Your task to perform on an android device: turn on data saver in the chrome app Image 0: 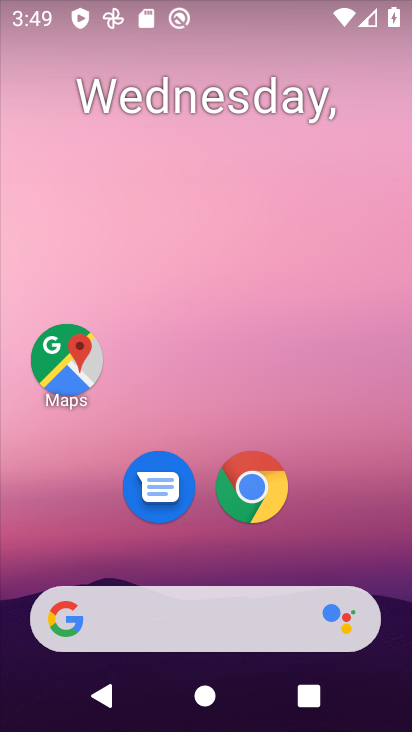
Step 0: drag from (382, 542) to (380, 250)
Your task to perform on an android device: turn on data saver in the chrome app Image 1: 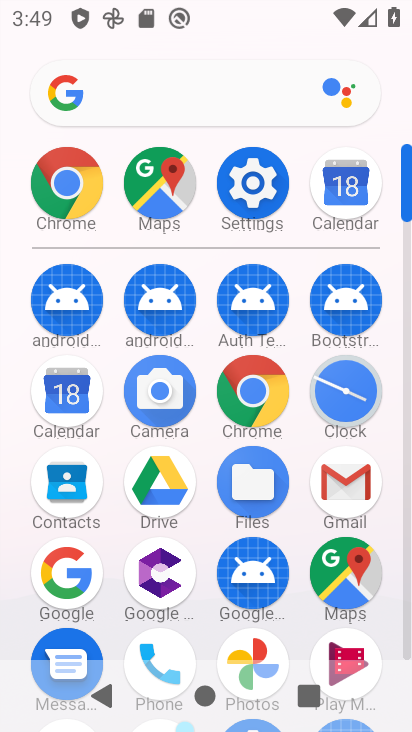
Step 1: click (285, 391)
Your task to perform on an android device: turn on data saver in the chrome app Image 2: 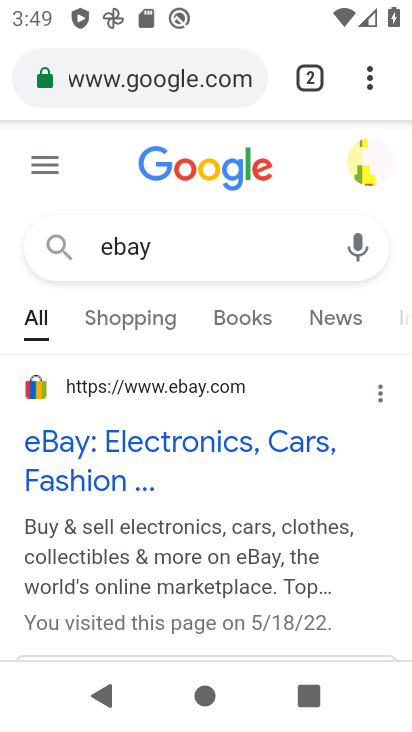
Step 2: click (370, 81)
Your task to perform on an android device: turn on data saver in the chrome app Image 3: 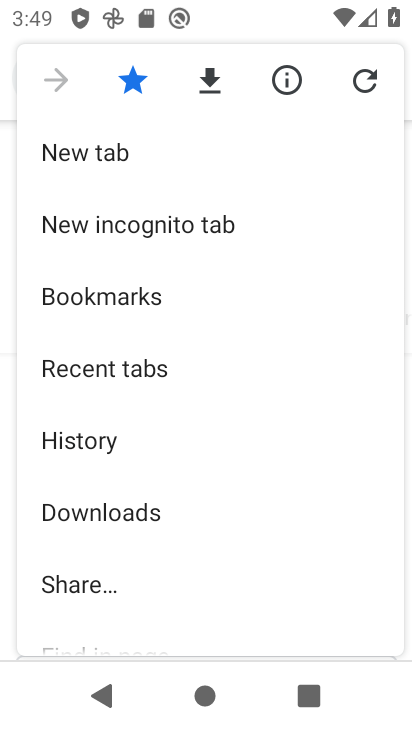
Step 3: drag from (336, 496) to (352, 411)
Your task to perform on an android device: turn on data saver in the chrome app Image 4: 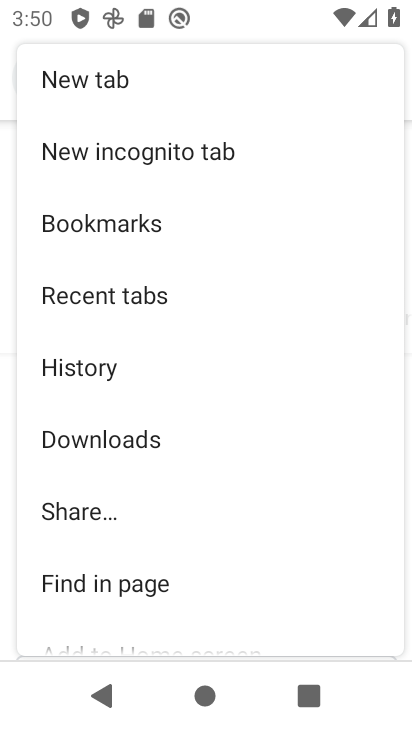
Step 4: drag from (348, 535) to (368, 420)
Your task to perform on an android device: turn on data saver in the chrome app Image 5: 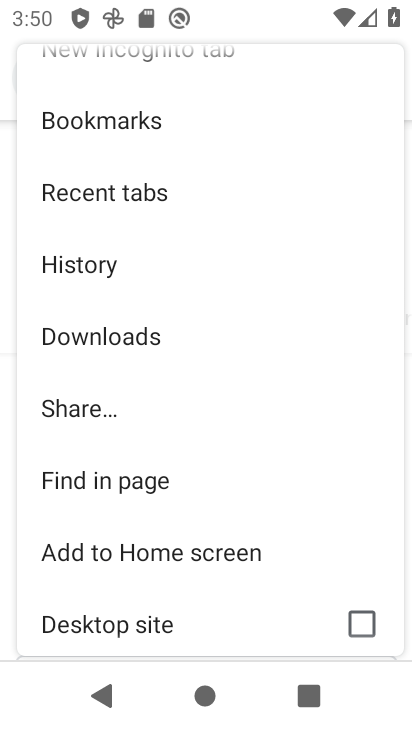
Step 5: drag from (331, 535) to (350, 405)
Your task to perform on an android device: turn on data saver in the chrome app Image 6: 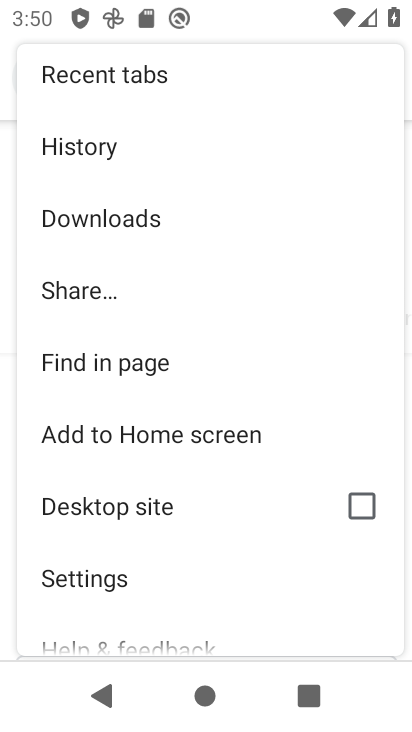
Step 6: drag from (293, 591) to (323, 391)
Your task to perform on an android device: turn on data saver in the chrome app Image 7: 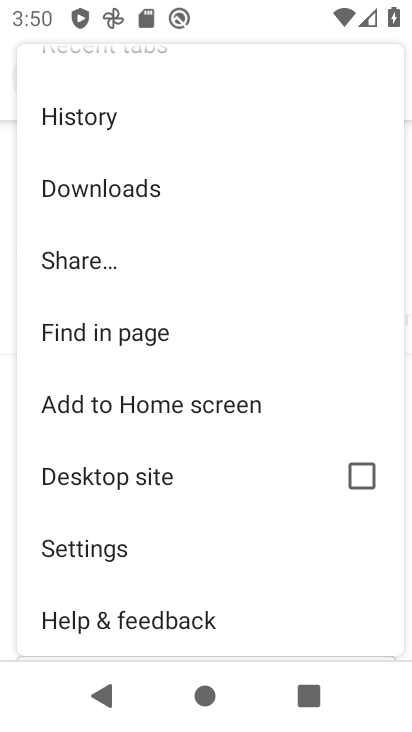
Step 7: drag from (323, 336) to (299, 446)
Your task to perform on an android device: turn on data saver in the chrome app Image 8: 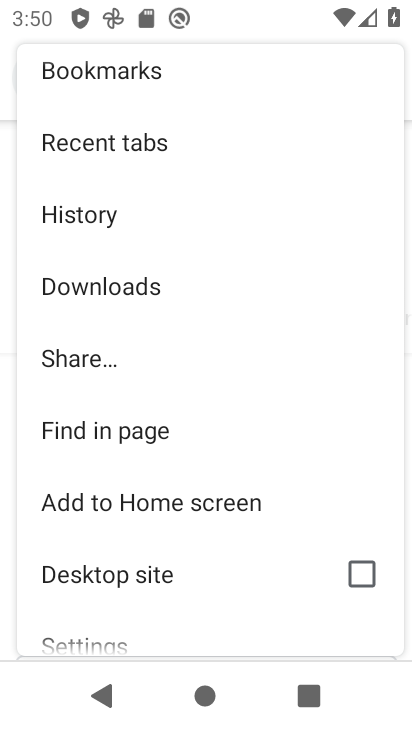
Step 8: drag from (298, 305) to (299, 397)
Your task to perform on an android device: turn on data saver in the chrome app Image 9: 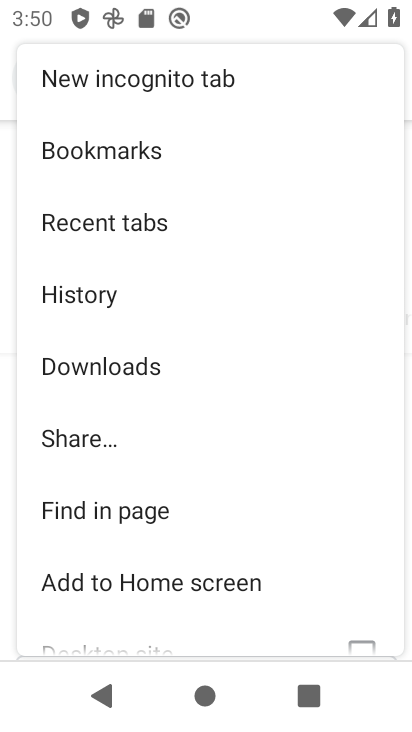
Step 9: drag from (297, 289) to (298, 393)
Your task to perform on an android device: turn on data saver in the chrome app Image 10: 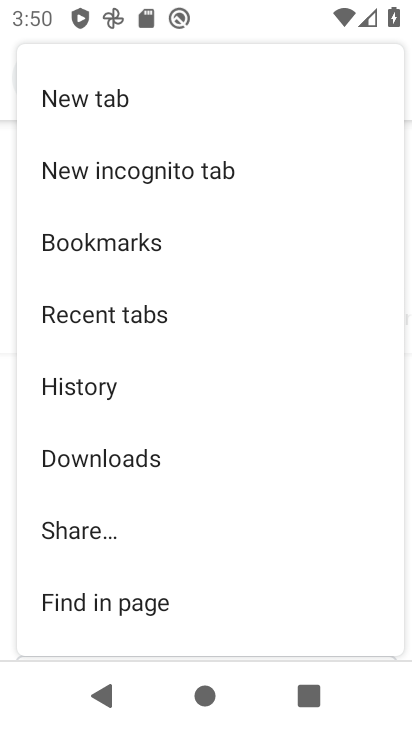
Step 10: drag from (307, 275) to (301, 387)
Your task to perform on an android device: turn on data saver in the chrome app Image 11: 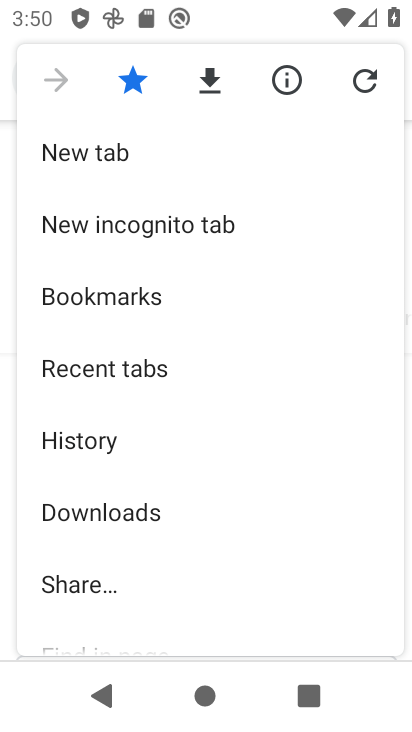
Step 11: drag from (293, 485) to (313, 409)
Your task to perform on an android device: turn on data saver in the chrome app Image 12: 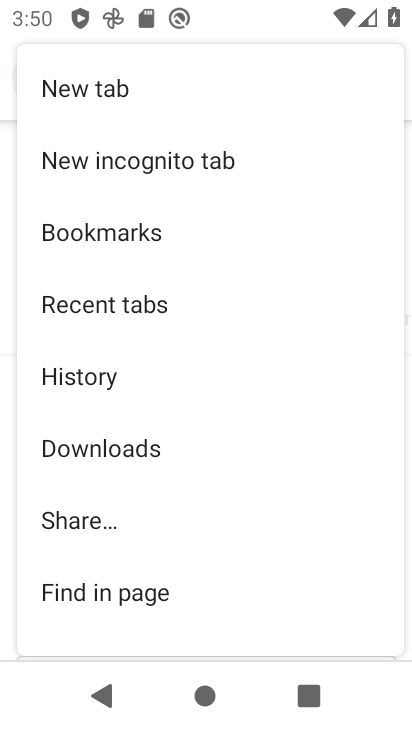
Step 12: drag from (307, 529) to (322, 437)
Your task to perform on an android device: turn on data saver in the chrome app Image 13: 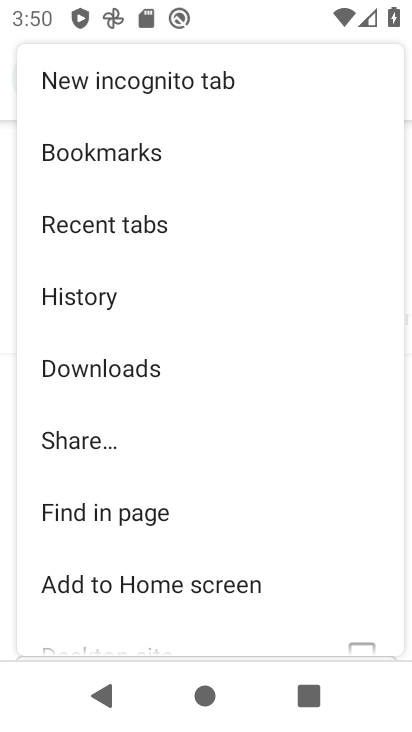
Step 13: drag from (307, 564) to (328, 430)
Your task to perform on an android device: turn on data saver in the chrome app Image 14: 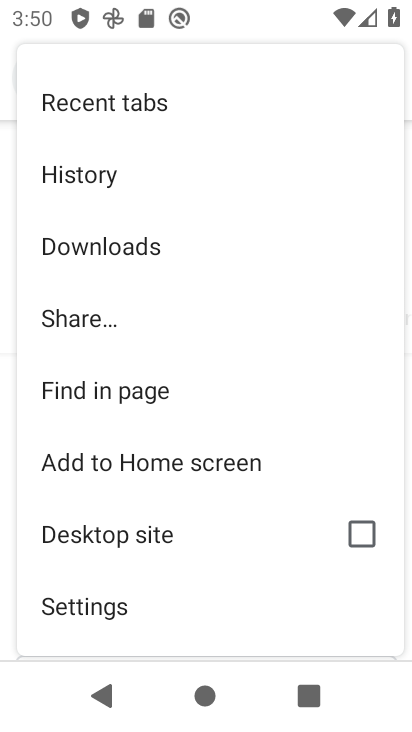
Step 14: drag from (289, 561) to (314, 450)
Your task to perform on an android device: turn on data saver in the chrome app Image 15: 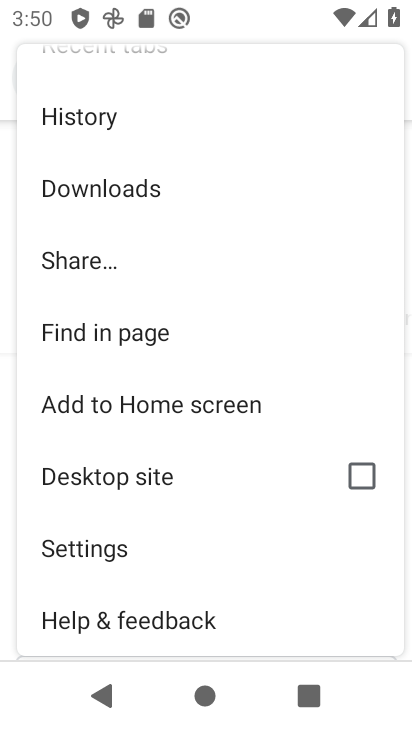
Step 15: drag from (290, 577) to (305, 448)
Your task to perform on an android device: turn on data saver in the chrome app Image 16: 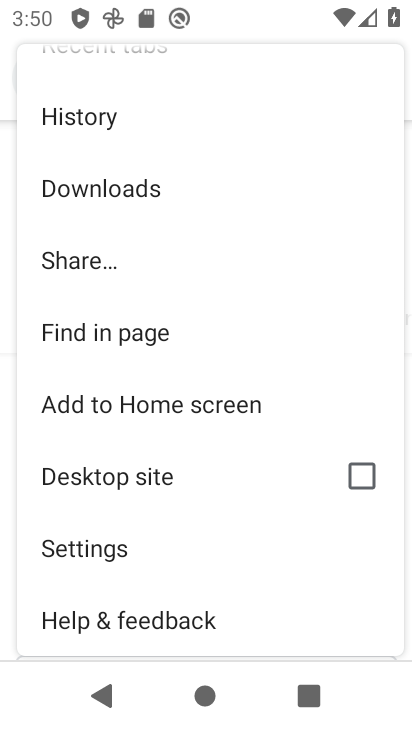
Step 16: click (129, 554)
Your task to perform on an android device: turn on data saver in the chrome app Image 17: 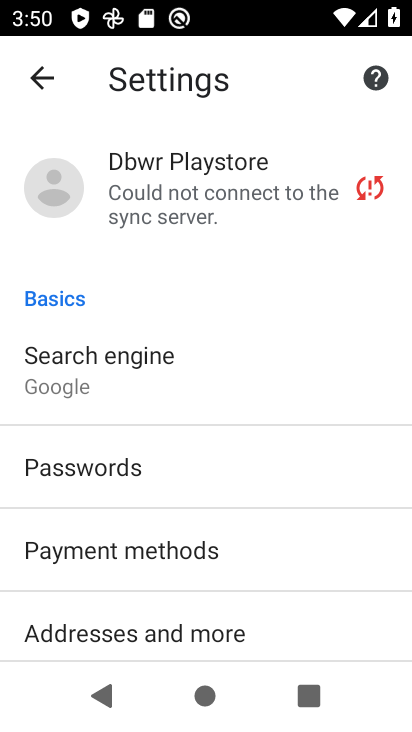
Step 17: drag from (300, 632) to (303, 503)
Your task to perform on an android device: turn on data saver in the chrome app Image 18: 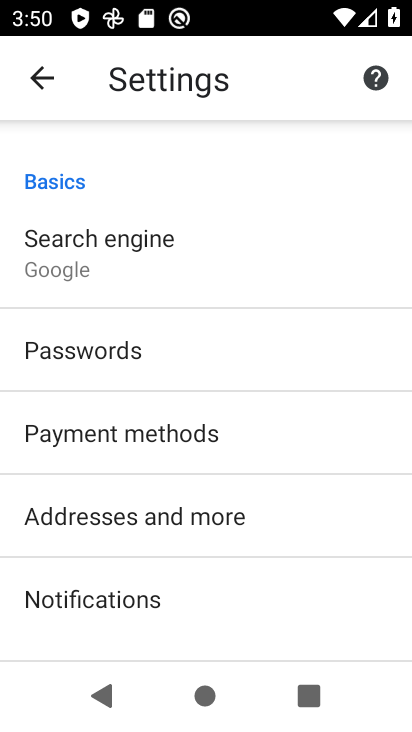
Step 18: drag from (287, 626) to (287, 503)
Your task to perform on an android device: turn on data saver in the chrome app Image 19: 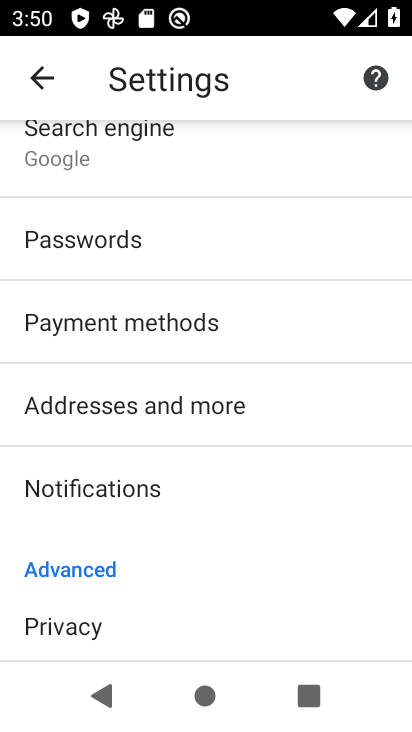
Step 19: drag from (271, 612) to (269, 514)
Your task to perform on an android device: turn on data saver in the chrome app Image 20: 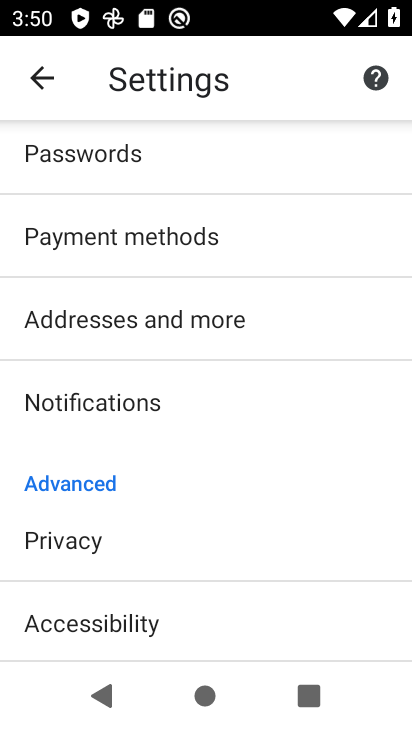
Step 20: drag from (252, 604) to (266, 518)
Your task to perform on an android device: turn on data saver in the chrome app Image 21: 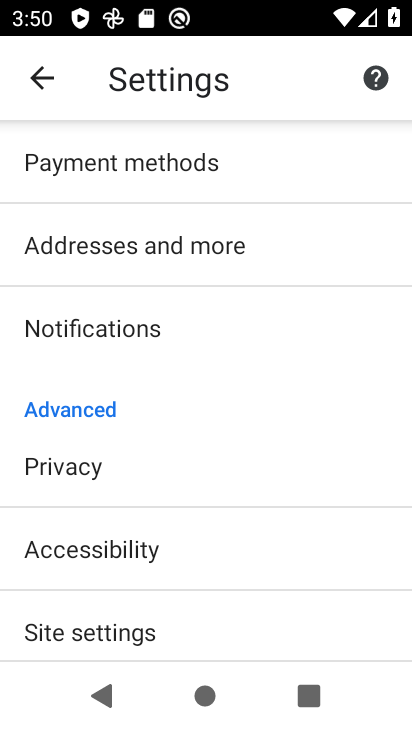
Step 21: drag from (273, 592) to (280, 504)
Your task to perform on an android device: turn on data saver in the chrome app Image 22: 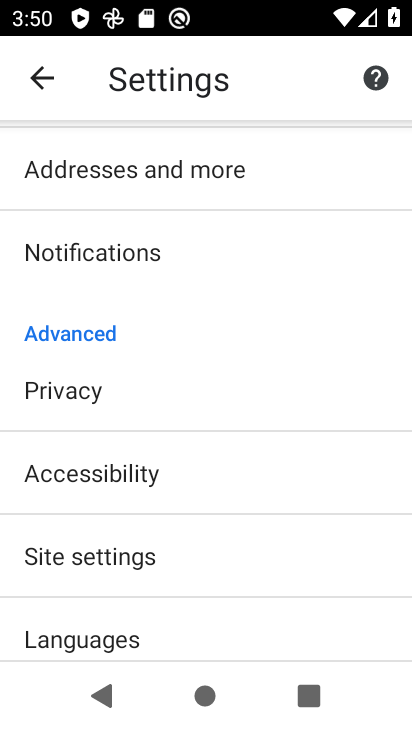
Step 22: drag from (278, 592) to (284, 525)
Your task to perform on an android device: turn on data saver in the chrome app Image 23: 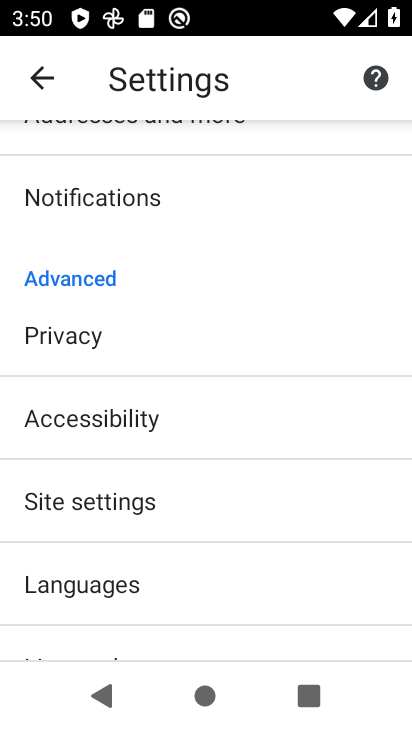
Step 23: drag from (286, 599) to (295, 493)
Your task to perform on an android device: turn on data saver in the chrome app Image 24: 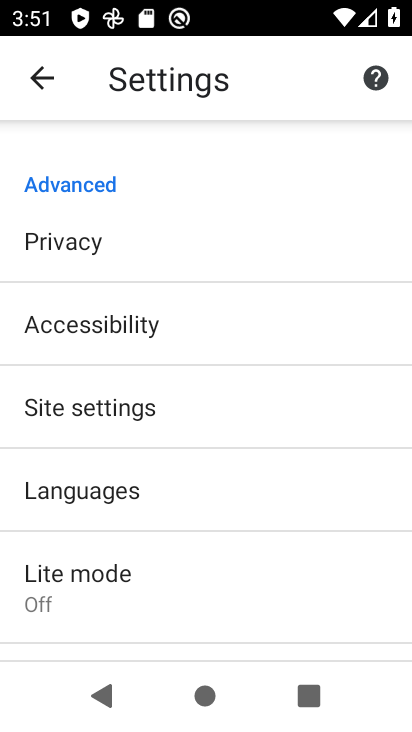
Step 24: drag from (301, 586) to (314, 453)
Your task to perform on an android device: turn on data saver in the chrome app Image 25: 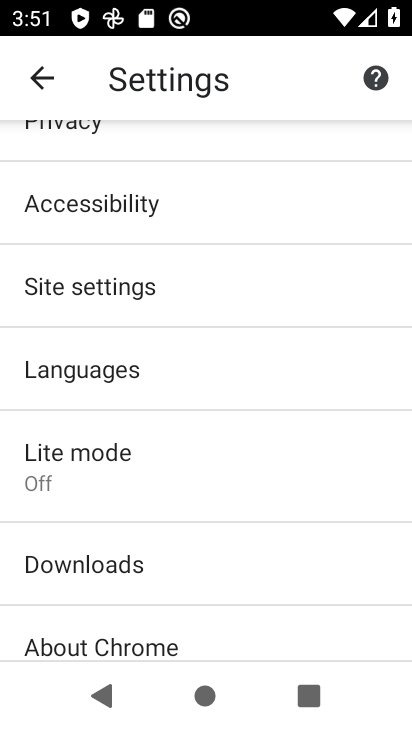
Step 25: click (275, 485)
Your task to perform on an android device: turn on data saver in the chrome app Image 26: 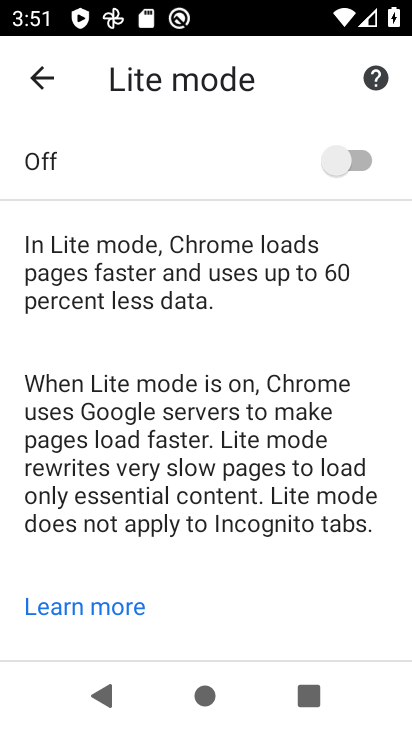
Step 26: click (366, 163)
Your task to perform on an android device: turn on data saver in the chrome app Image 27: 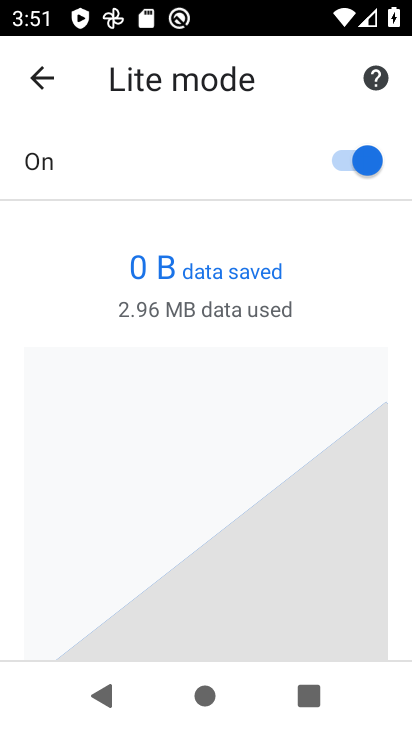
Step 27: task complete